Your task to perform on an android device: change notification settings in the gmail app Image 0: 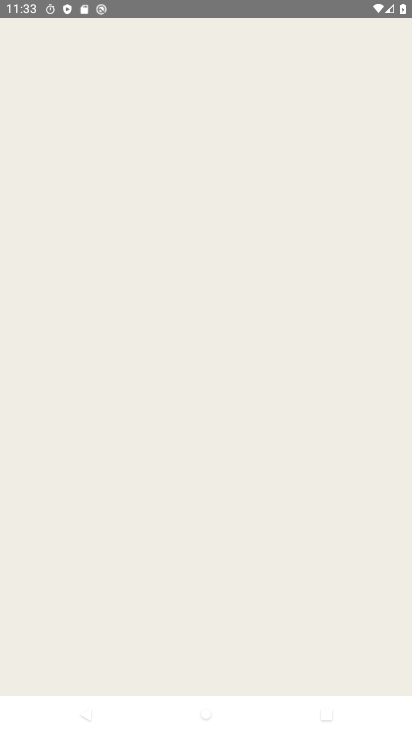
Step 0: click (322, 153)
Your task to perform on an android device: change notification settings in the gmail app Image 1: 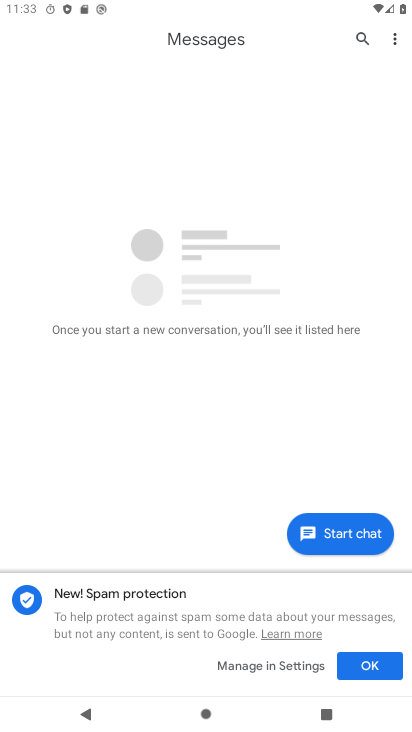
Step 1: press back button
Your task to perform on an android device: change notification settings in the gmail app Image 2: 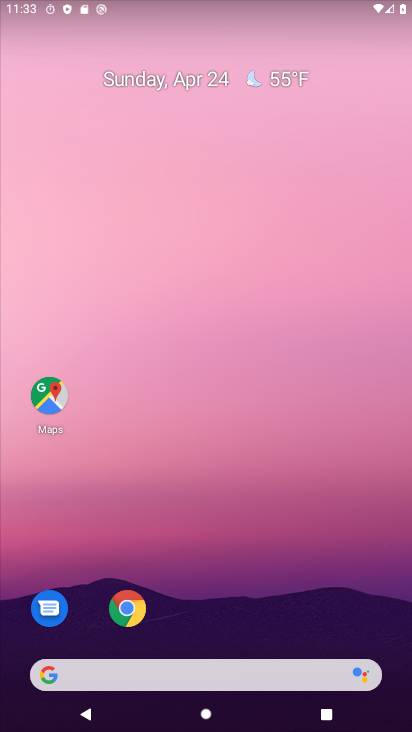
Step 2: press back button
Your task to perform on an android device: change notification settings in the gmail app Image 3: 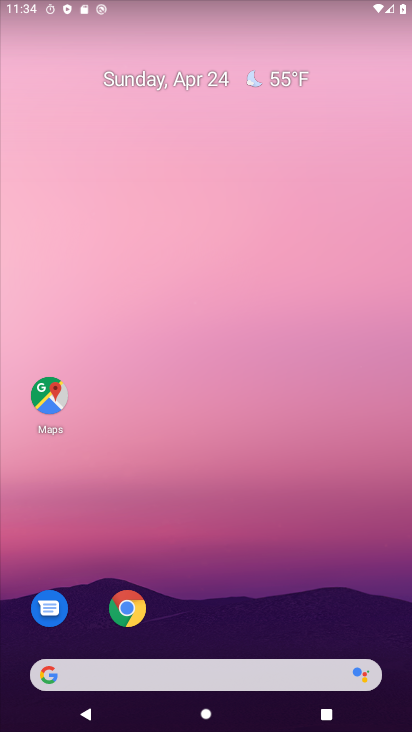
Step 3: drag from (233, 587) to (301, 79)
Your task to perform on an android device: change notification settings in the gmail app Image 4: 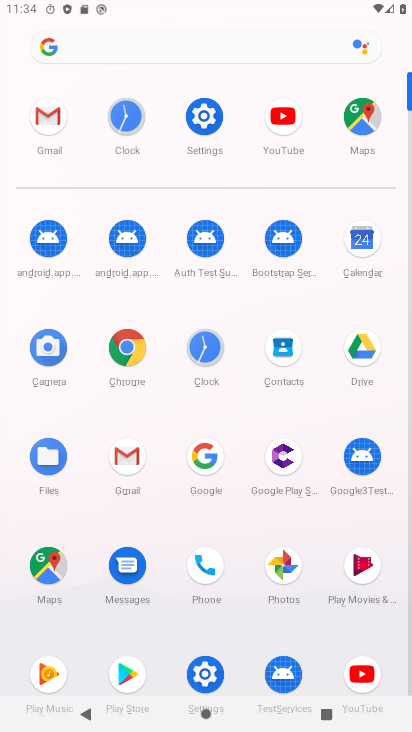
Step 4: click (54, 115)
Your task to perform on an android device: change notification settings in the gmail app Image 5: 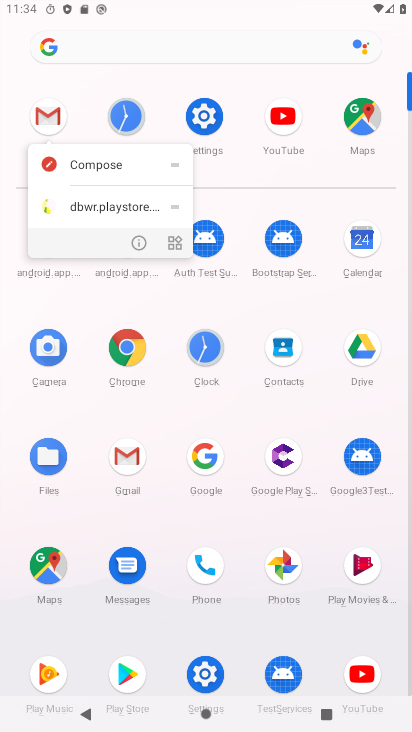
Step 5: click (137, 237)
Your task to perform on an android device: change notification settings in the gmail app Image 6: 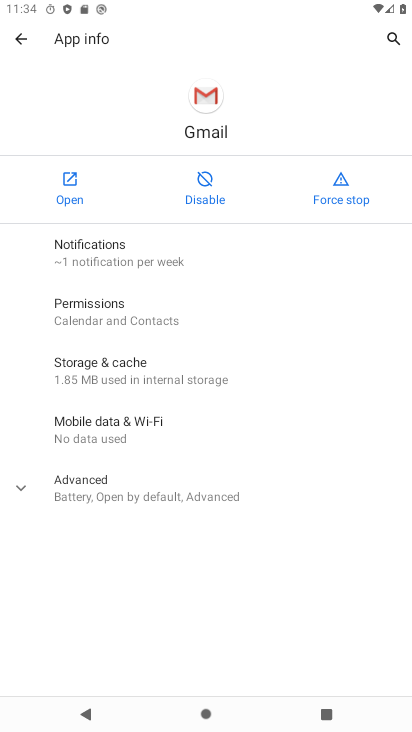
Step 6: click (137, 250)
Your task to perform on an android device: change notification settings in the gmail app Image 7: 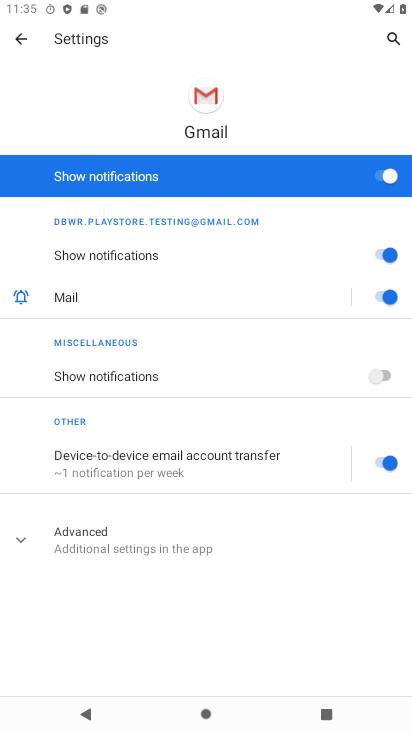
Step 7: click (372, 371)
Your task to perform on an android device: change notification settings in the gmail app Image 8: 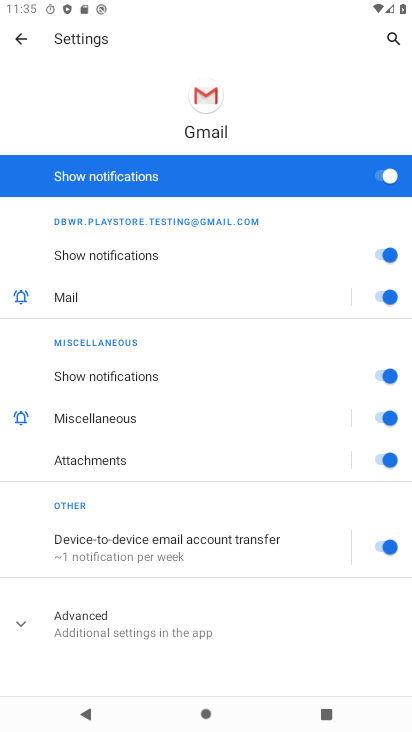
Step 8: task complete